Your task to perform on an android device: find which apps use the phone's location Image 0: 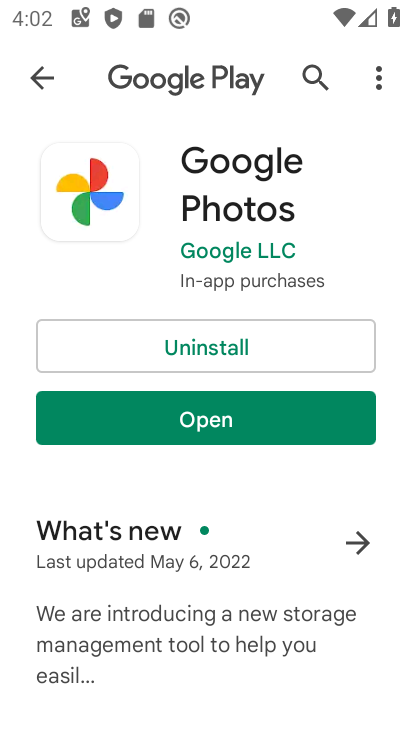
Step 0: press home button
Your task to perform on an android device: find which apps use the phone's location Image 1: 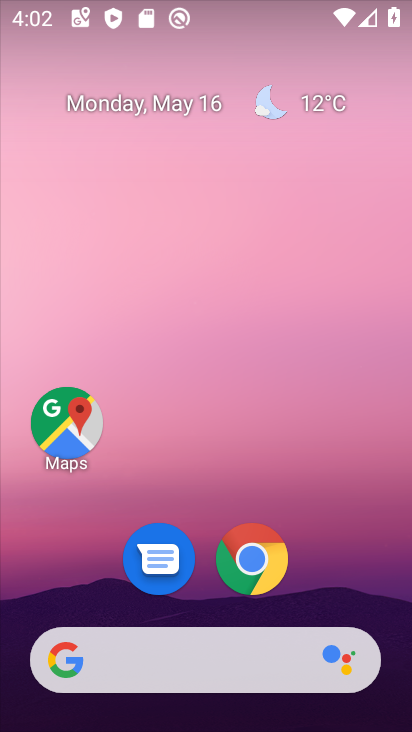
Step 1: drag from (354, 553) to (308, 111)
Your task to perform on an android device: find which apps use the phone's location Image 2: 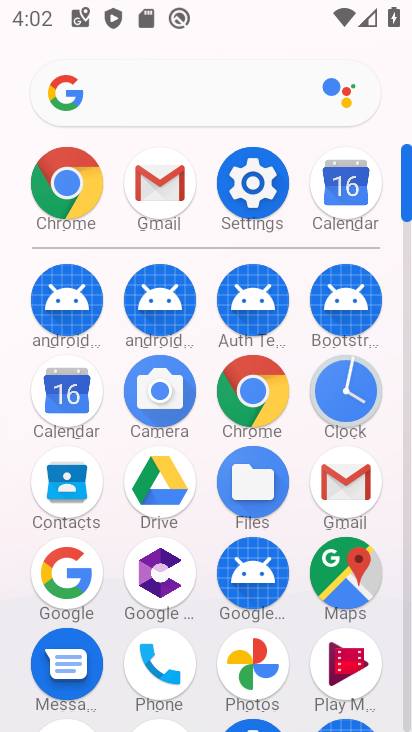
Step 2: click (407, 616)
Your task to perform on an android device: find which apps use the phone's location Image 3: 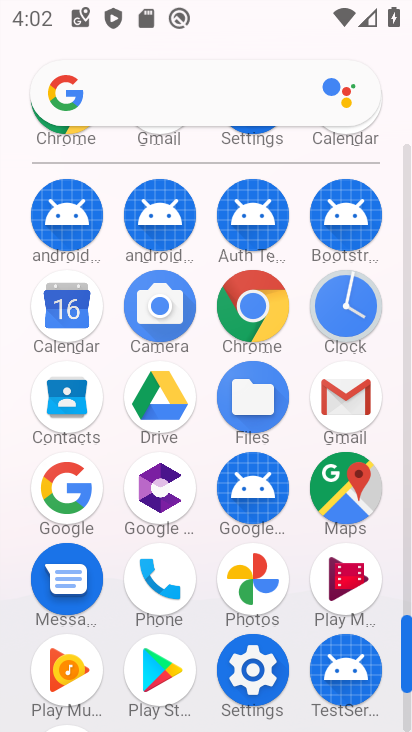
Step 3: click (137, 665)
Your task to perform on an android device: find which apps use the phone's location Image 4: 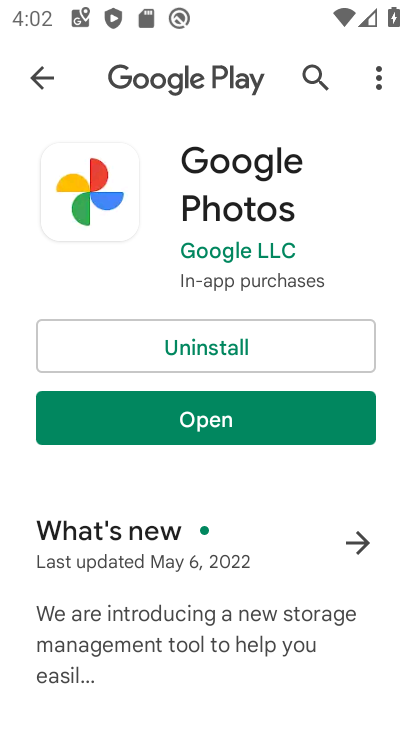
Step 4: click (44, 81)
Your task to perform on an android device: find which apps use the phone's location Image 5: 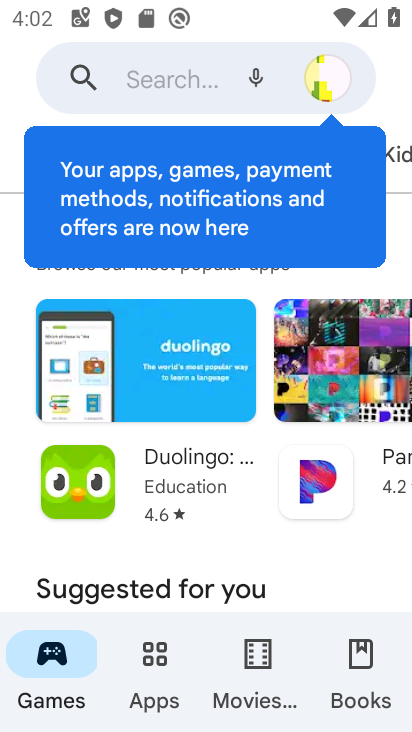
Step 5: press home button
Your task to perform on an android device: find which apps use the phone's location Image 6: 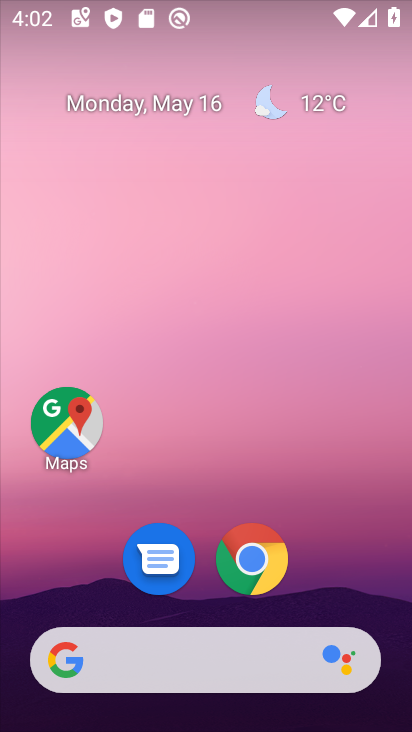
Step 6: drag from (361, 541) to (301, 113)
Your task to perform on an android device: find which apps use the phone's location Image 7: 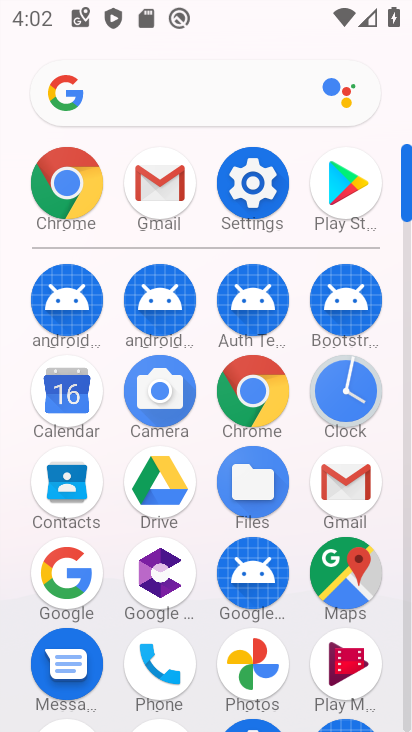
Step 7: click (263, 168)
Your task to perform on an android device: find which apps use the phone's location Image 8: 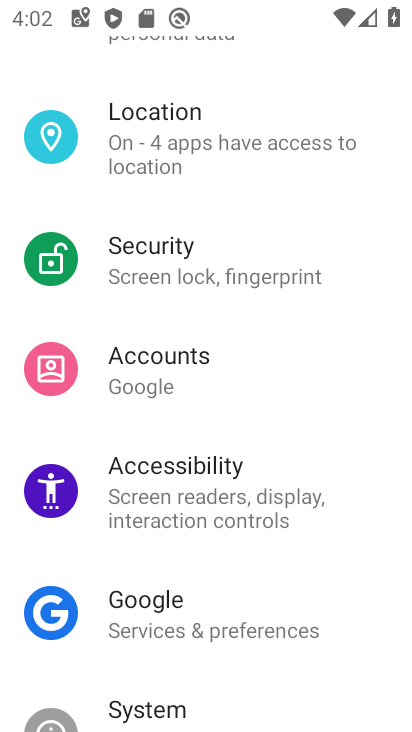
Step 8: click (211, 160)
Your task to perform on an android device: find which apps use the phone's location Image 9: 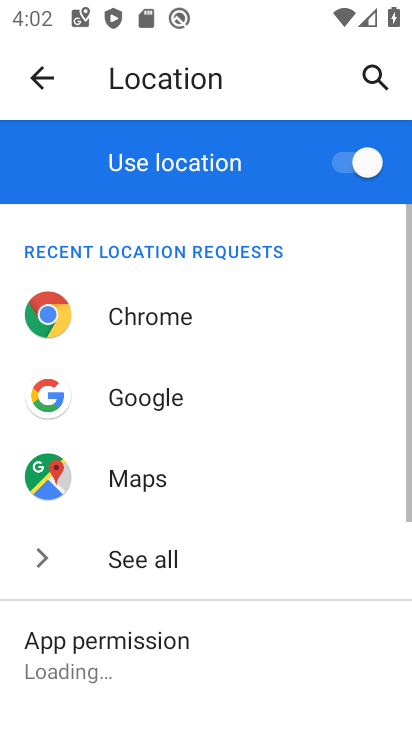
Step 9: task complete